Your task to perform on an android device: turn off improve location accuracy Image 0: 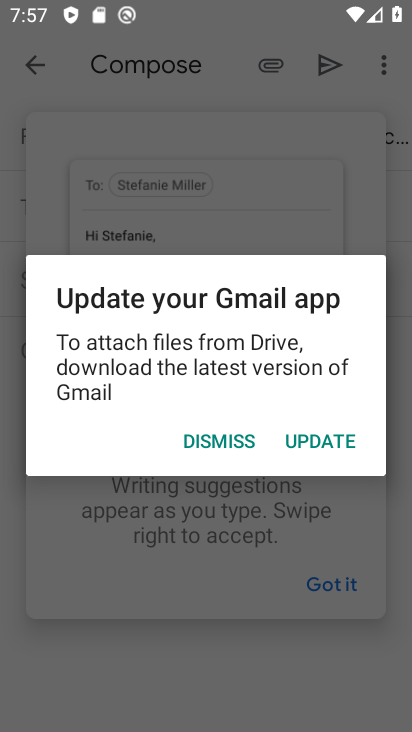
Step 0: click (247, 430)
Your task to perform on an android device: turn off improve location accuracy Image 1: 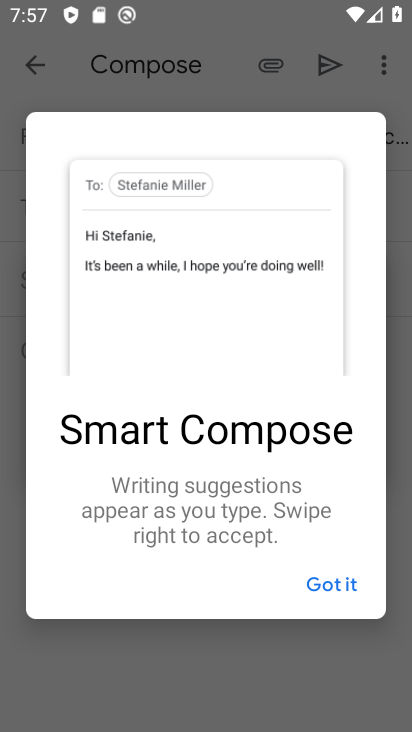
Step 1: press home button
Your task to perform on an android device: turn off improve location accuracy Image 2: 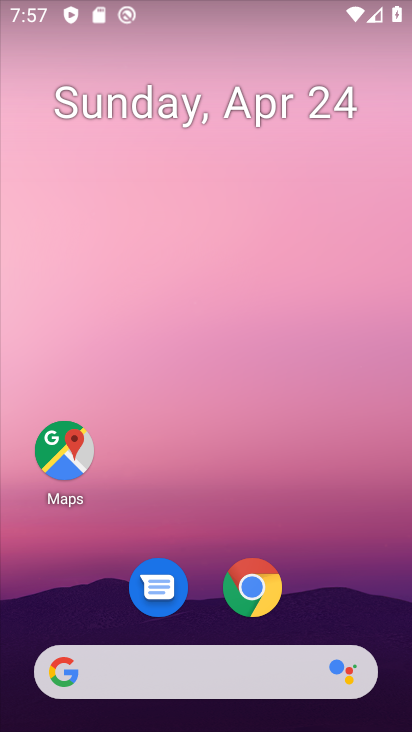
Step 2: drag from (338, 570) to (251, 1)
Your task to perform on an android device: turn off improve location accuracy Image 3: 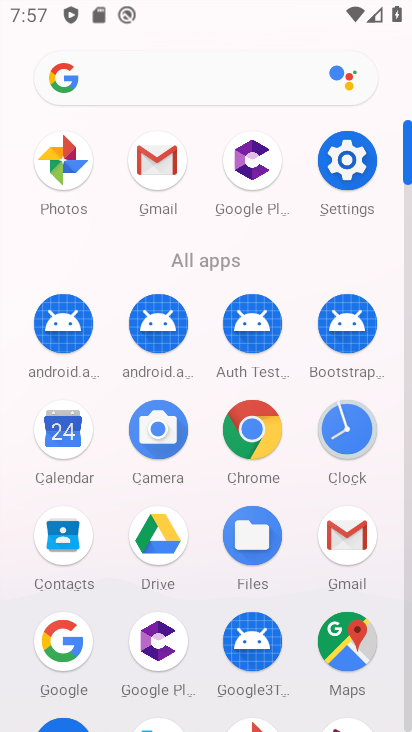
Step 3: drag from (198, 250) to (179, 38)
Your task to perform on an android device: turn off improve location accuracy Image 4: 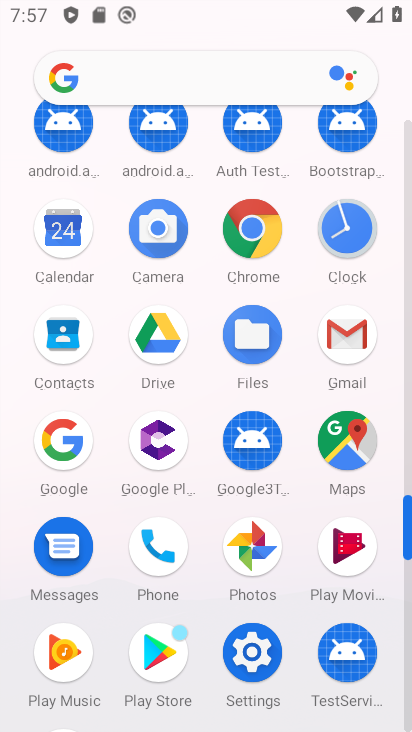
Step 4: click (252, 651)
Your task to perform on an android device: turn off improve location accuracy Image 5: 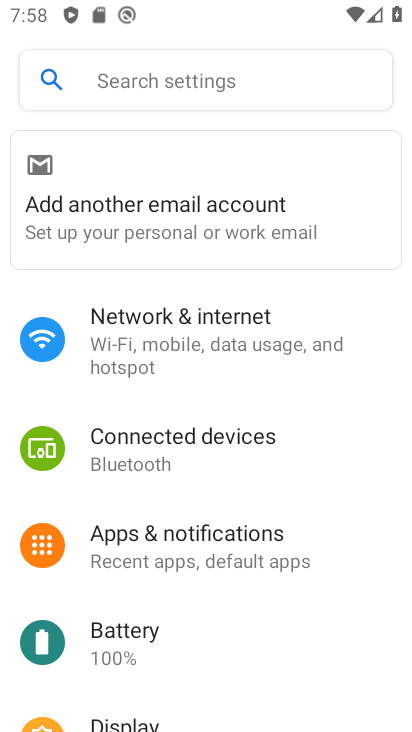
Step 5: drag from (212, 651) to (172, 243)
Your task to perform on an android device: turn off improve location accuracy Image 6: 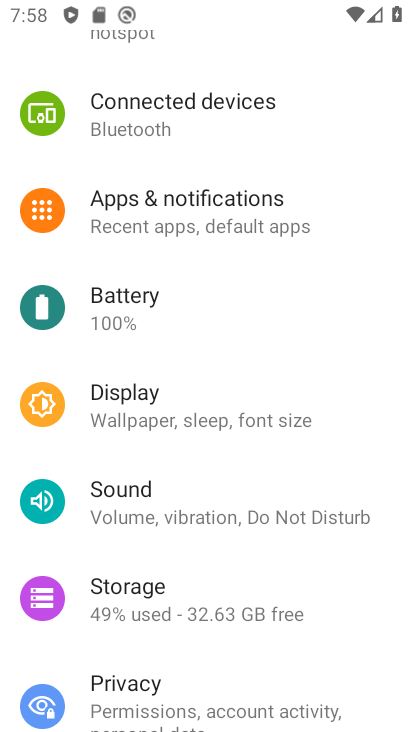
Step 6: drag from (189, 603) to (205, 138)
Your task to perform on an android device: turn off improve location accuracy Image 7: 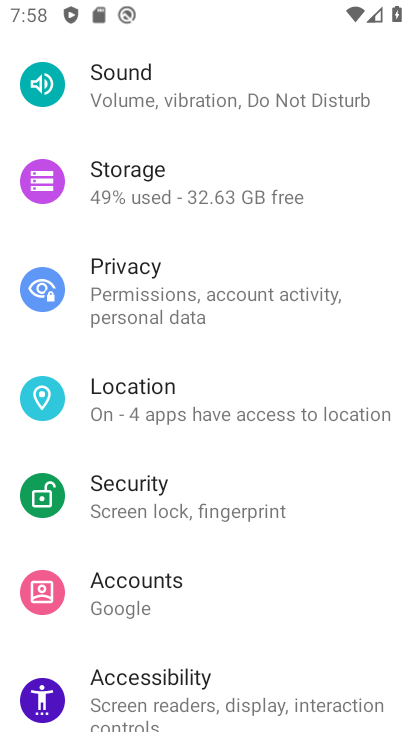
Step 7: click (141, 386)
Your task to perform on an android device: turn off improve location accuracy Image 8: 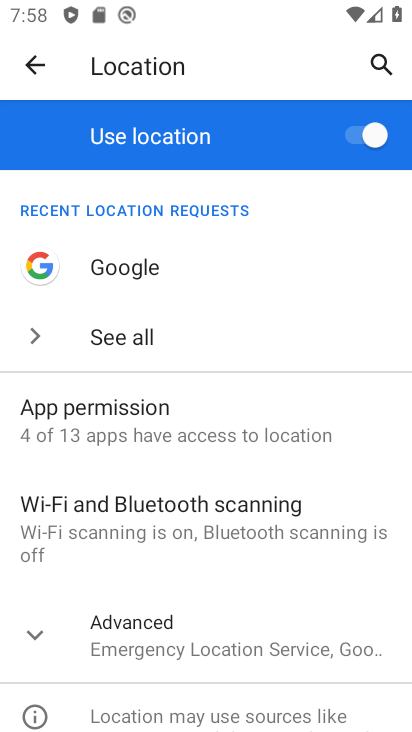
Step 8: click (30, 646)
Your task to perform on an android device: turn off improve location accuracy Image 9: 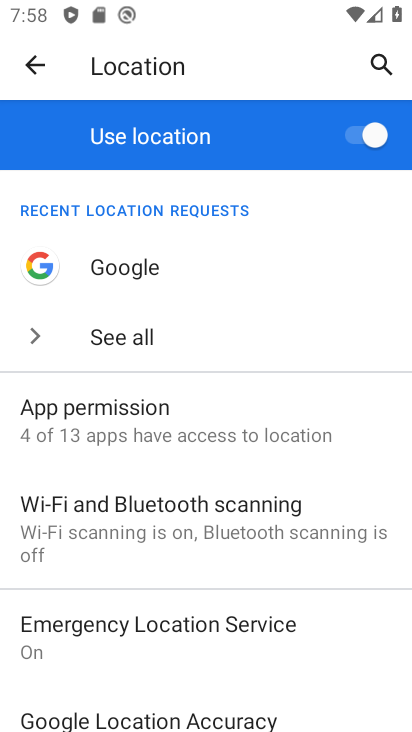
Step 9: click (211, 714)
Your task to perform on an android device: turn off improve location accuracy Image 10: 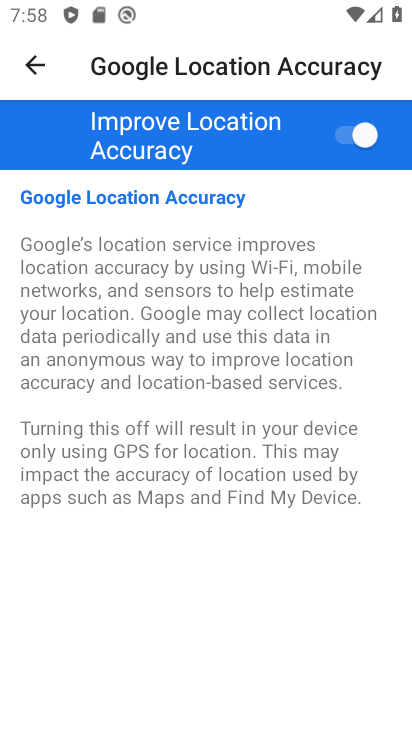
Step 10: click (359, 132)
Your task to perform on an android device: turn off improve location accuracy Image 11: 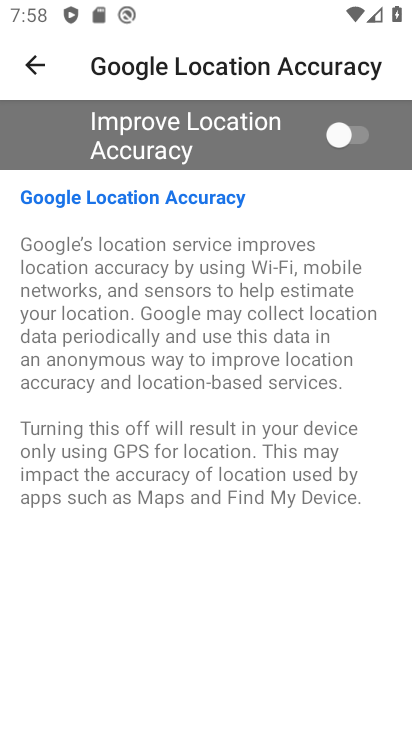
Step 11: task complete